Your task to perform on an android device: turn on the 24-hour format for clock Image 0: 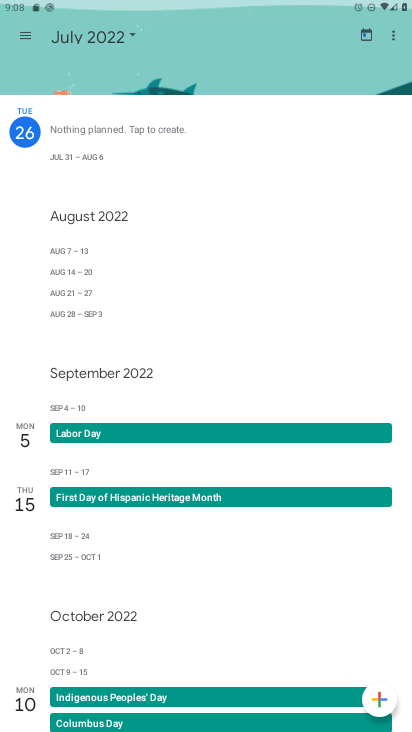
Step 0: press home button
Your task to perform on an android device: turn on the 24-hour format for clock Image 1: 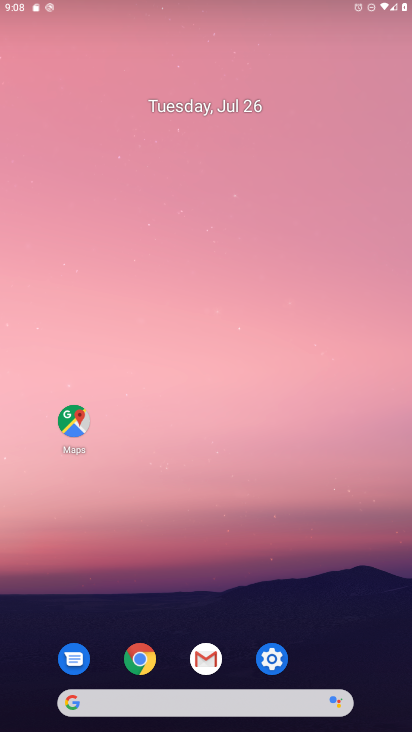
Step 1: drag from (237, 719) to (308, 94)
Your task to perform on an android device: turn on the 24-hour format for clock Image 2: 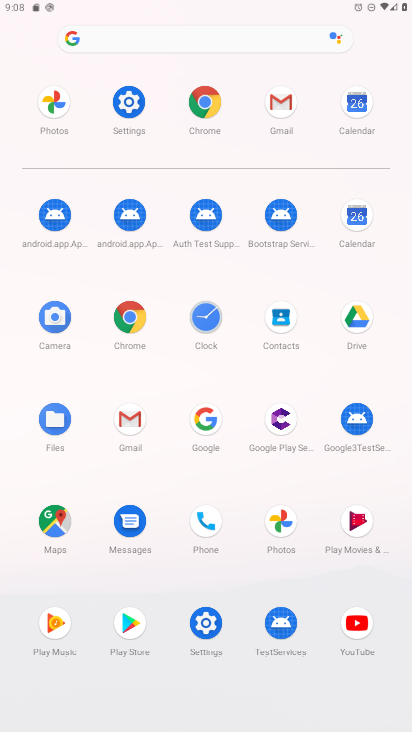
Step 2: click (209, 328)
Your task to perform on an android device: turn on the 24-hour format for clock Image 3: 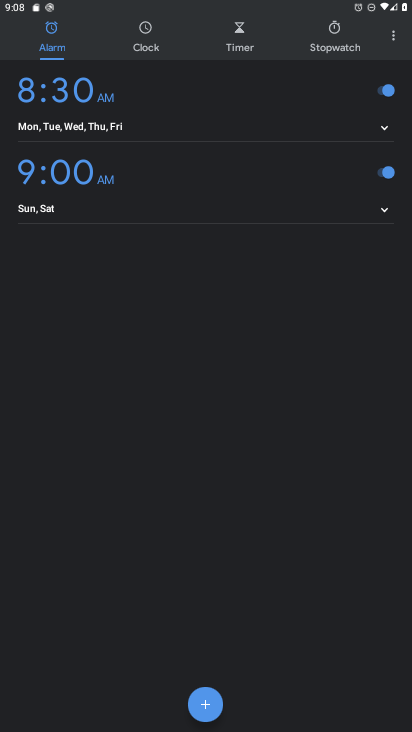
Step 3: click (403, 36)
Your task to perform on an android device: turn on the 24-hour format for clock Image 4: 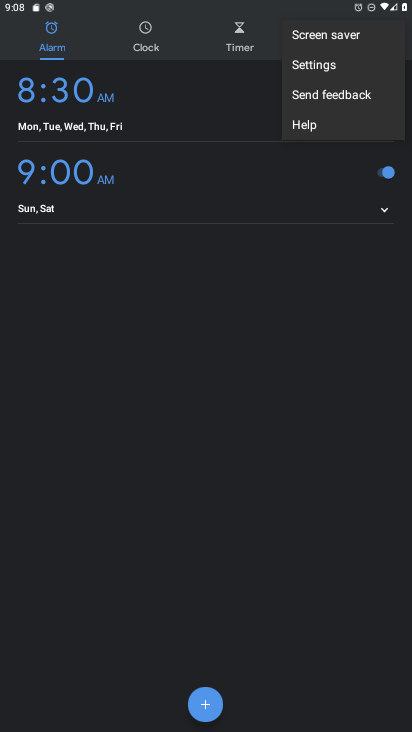
Step 4: click (306, 74)
Your task to perform on an android device: turn on the 24-hour format for clock Image 5: 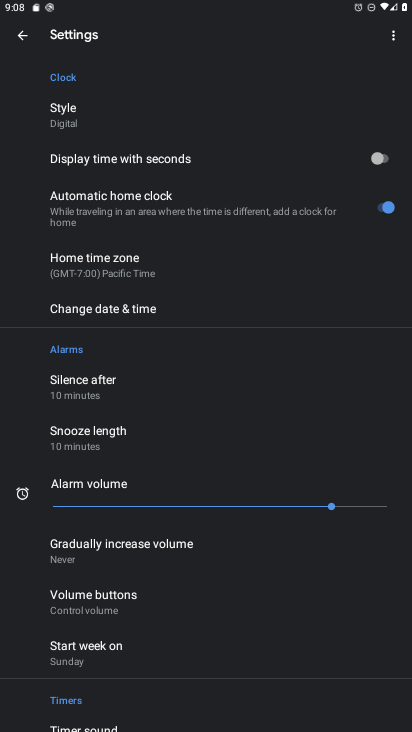
Step 5: click (117, 314)
Your task to perform on an android device: turn on the 24-hour format for clock Image 6: 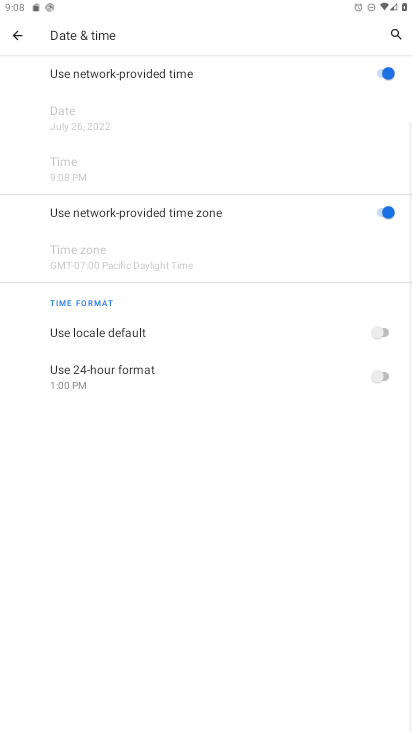
Step 6: click (388, 381)
Your task to perform on an android device: turn on the 24-hour format for clock Image 7: 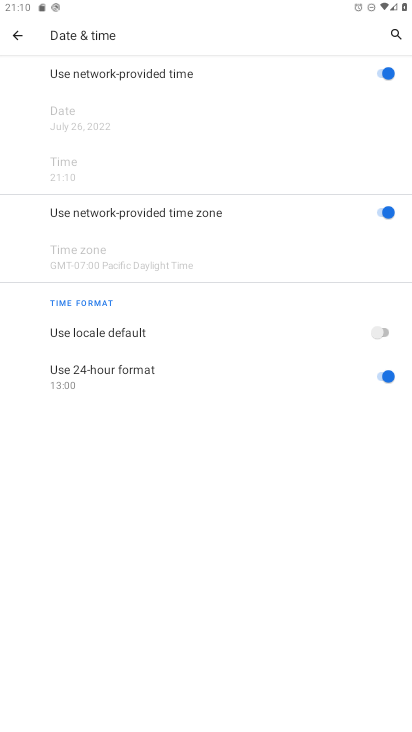
Step 7: task complete